Your task to perform on an android device: turn on data saver in the chrome app Image 0: 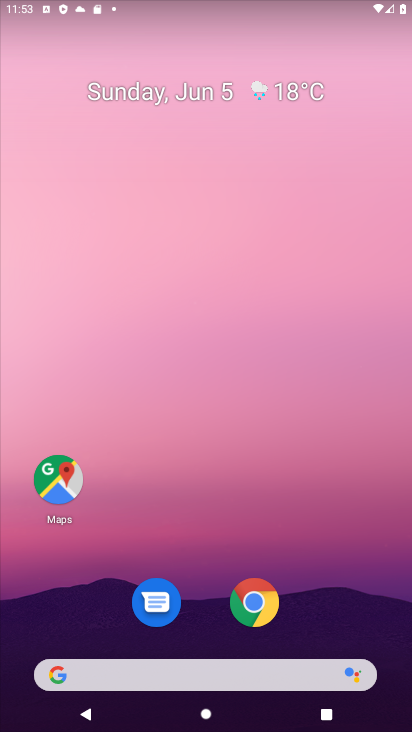
Step 0: task complete